Your task to perform on an android device: Turn on the flashlight Image 0: 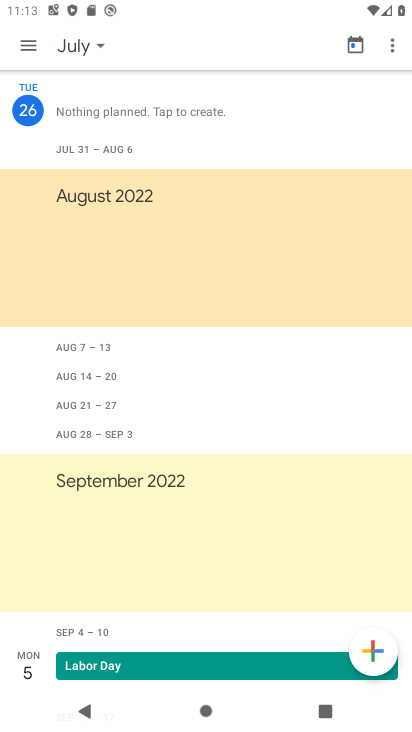
Step 0: press home button
Your task to perform on an android device: Turn on the flashlight Image 1: 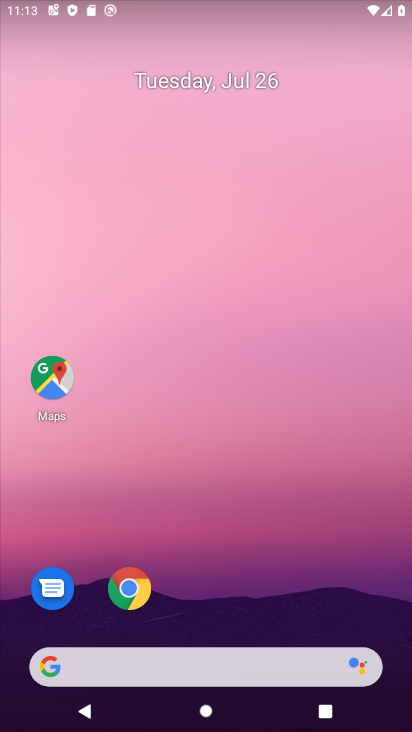
Step 1: task complete